Your task to perform on an android device: visit the assistant section in the google photos Image 0: 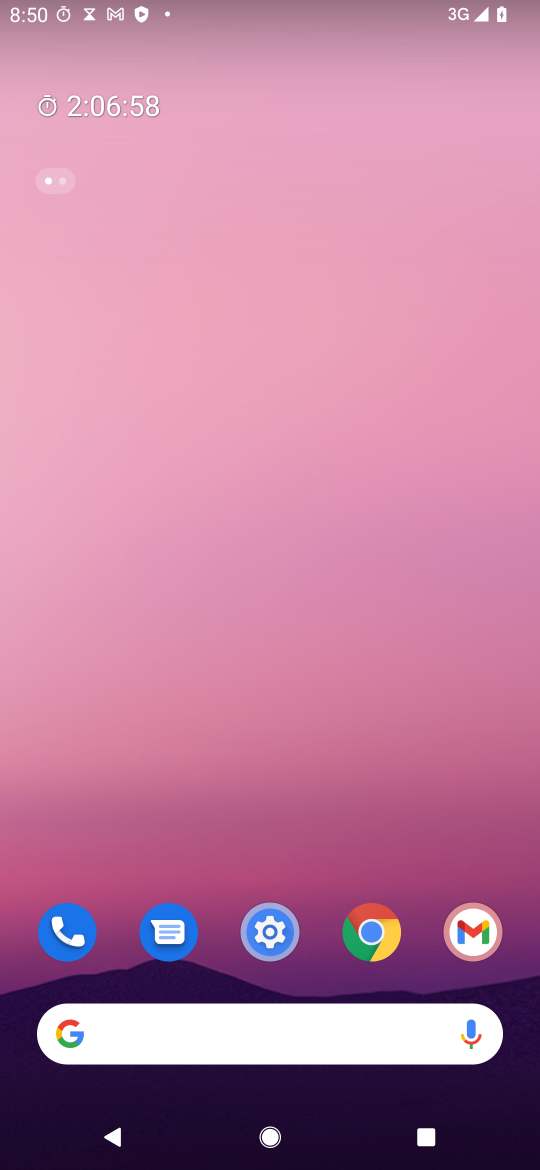
Step 0: drag from (321, 853) to (284, 54)
Your task to perform on an android device: visit the assistant section in the google photos Image 1: 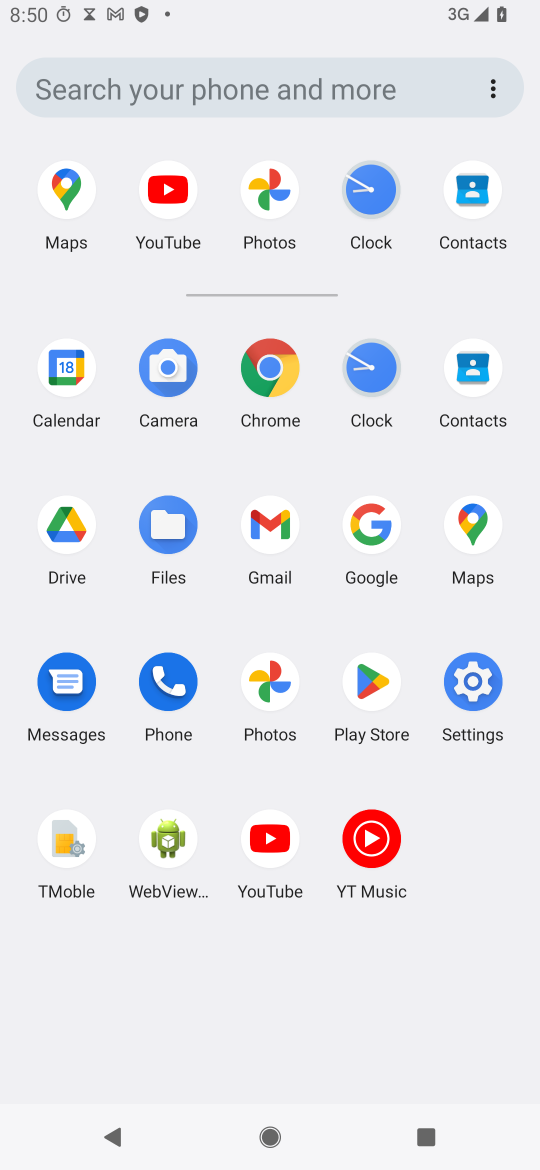
Step 1: click (277, 681)
Your task to perform on an android device: visit the assistant section in the google photos Image 2: 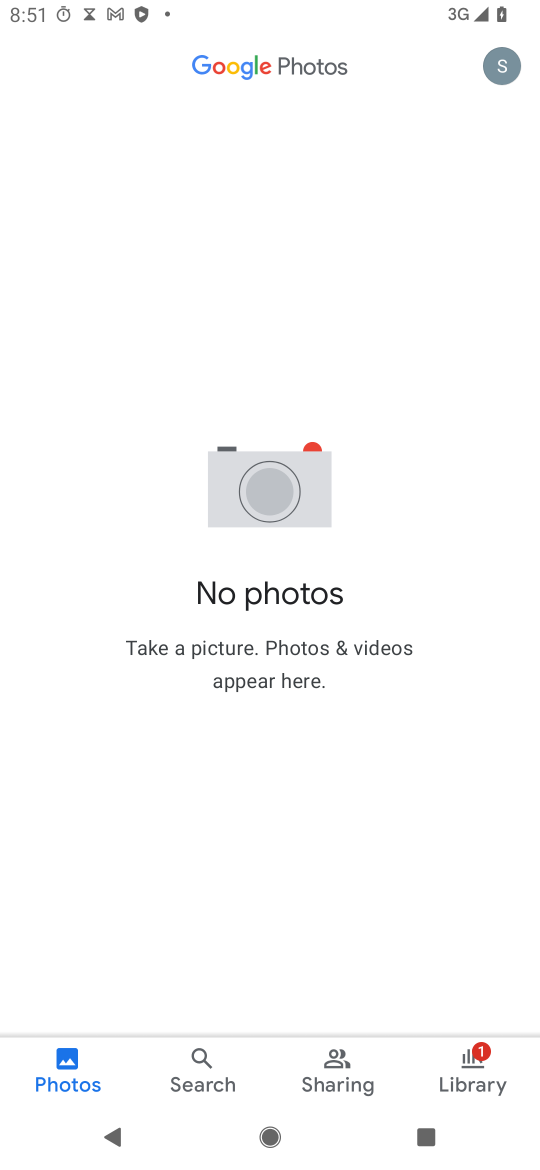
Step 2: task complete